Your task to perform on an android device: open wifi settings Image 0: 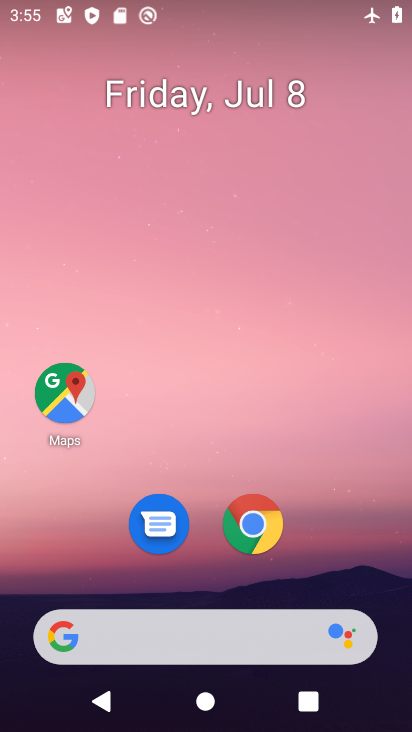
Step 0: drag from (220, 502) to (217, 30)
Your task to perform on an android device: open wifi settings Image 1: 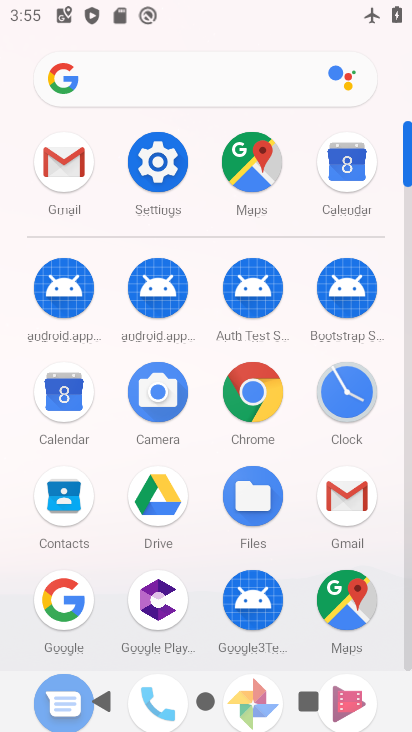
Step 1: click (165, 161)
Your task to perform on an android device: open wifi settings Image 2: 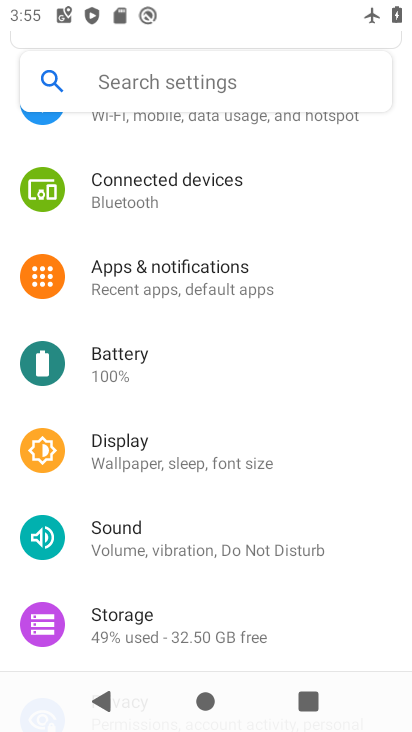
Step 2: drag from (233, 367) to (225, 555)
Your task to perform on an android device: open wifi settings Image 3: 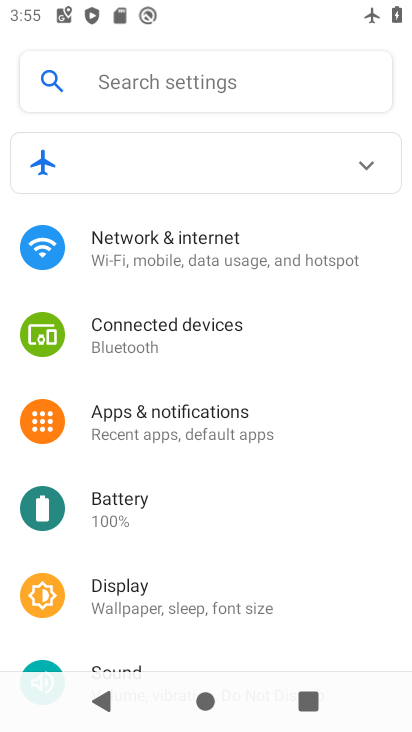
Step 3: click (239, 262)
Your task to perform on an android device: open wifi settings Image 4: 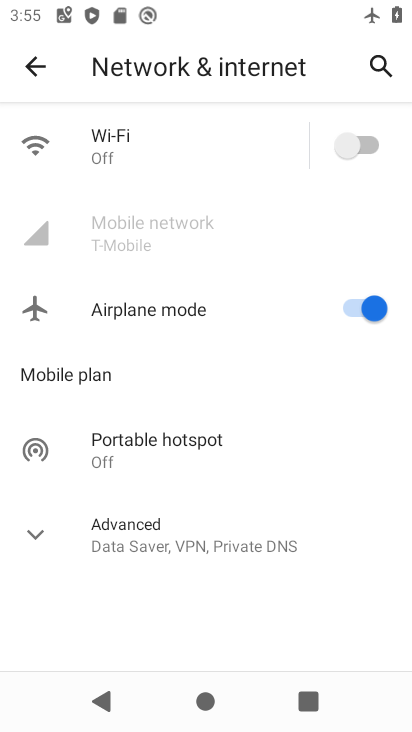
Step 4: click (131, 149)
Your task to perform on an android device: open wifi settings Image 5: 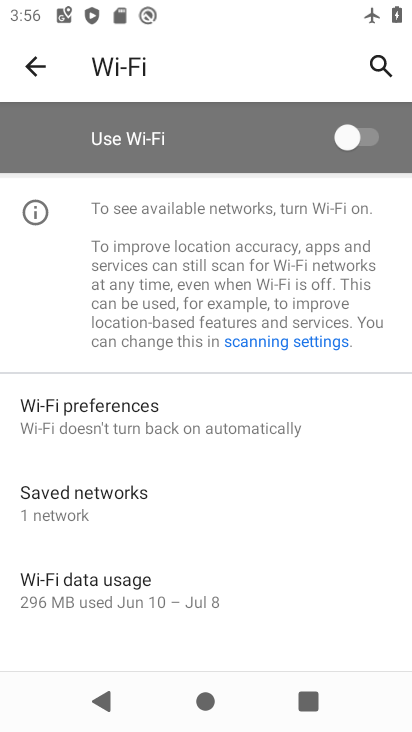
Step 5: task complete